Your task to perform on an android device: Open Google Maps Image 0: 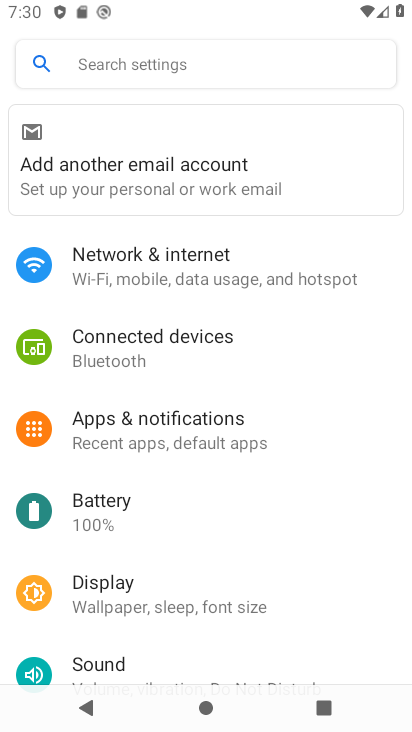
Step 0: press home button
Your task to perform on an android device: Open Google Maps Image 1: 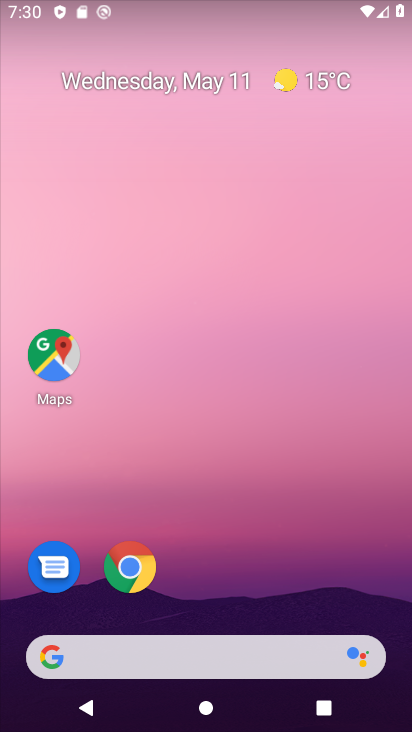
Step 1: click (64, 361)
Your task to perform on an android device: Open Google Maps Image 2: 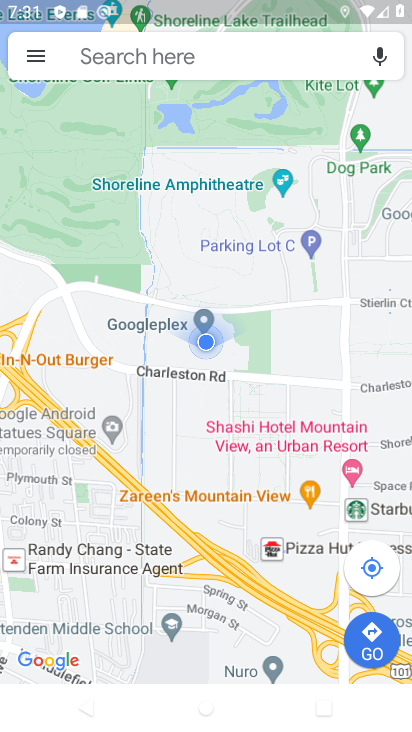
Step 2: task complete